Your task to perform on an android device: Open the phone app and click the voicemail tab. Image 0: 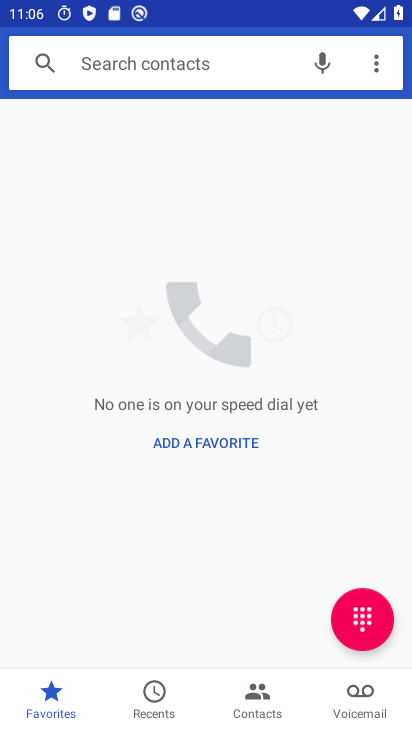
Step 0: press back button
Your task to perform on an android device: Open the phone app and click the voicemail tab. Image 1: 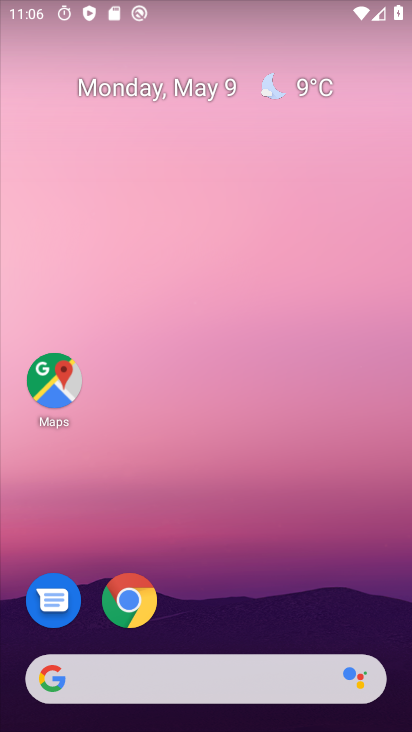
Step 1: drag from (228, 632) to (340, 48)
Your task to perform on an android device: Open the phone app and click the voicemail tab. Image 2: 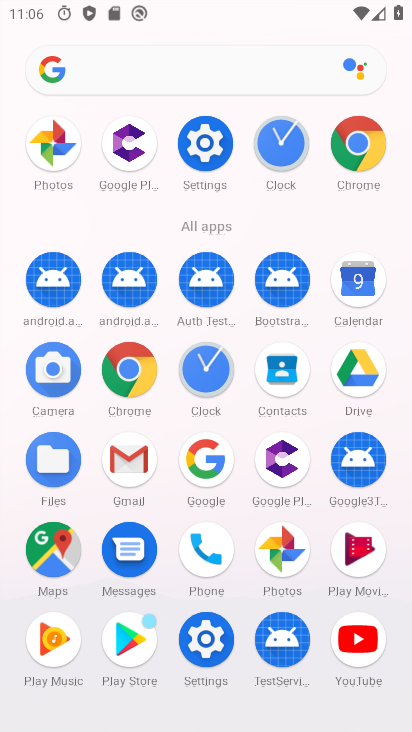
Step 2: click (215, 532)
Your task to perform on an android device: Open the phone app and click the voicemail tab. Image 3: 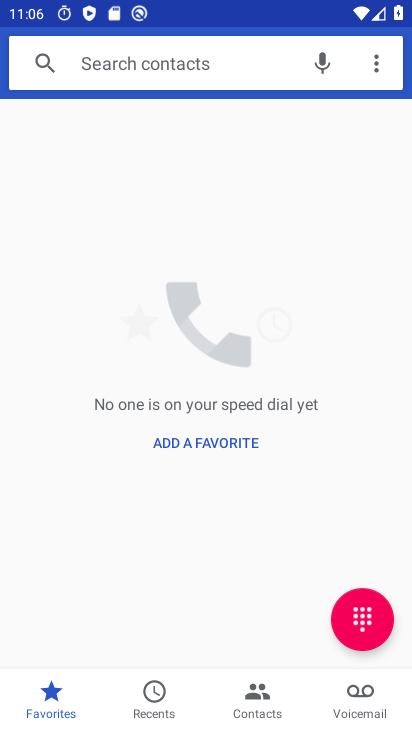
Step 3: click (358, 700)
Your task to perform on an android device: Open the phone app and click the voicemail tab. Image 4: 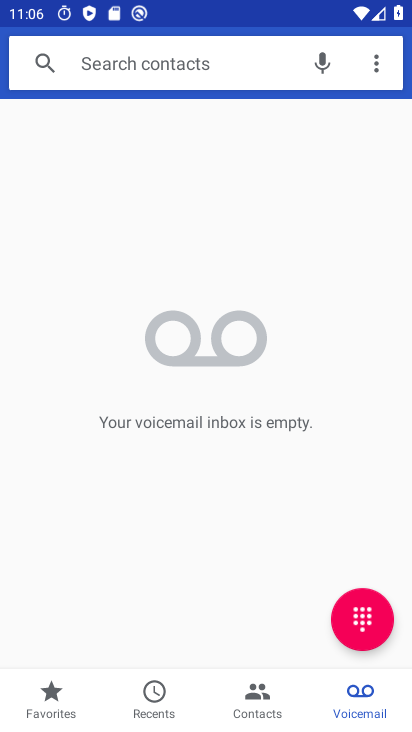
Step 4: task complete